Your task to perform on an android device: turn on sleep mode Image 0: 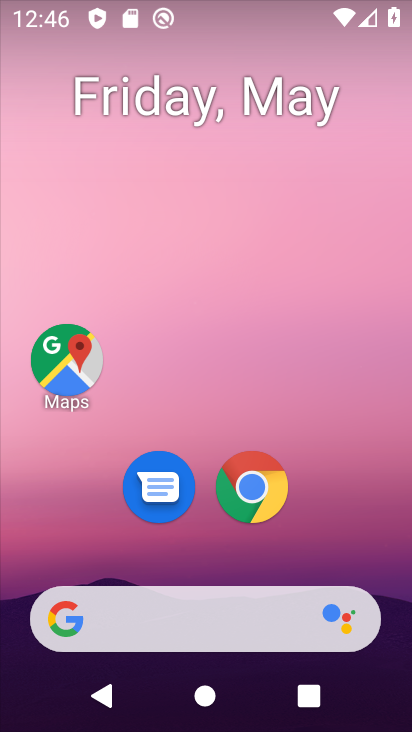
Step 0: click (209, 599)
Your task to perform on an android device: turn on sleep mode Image 1: 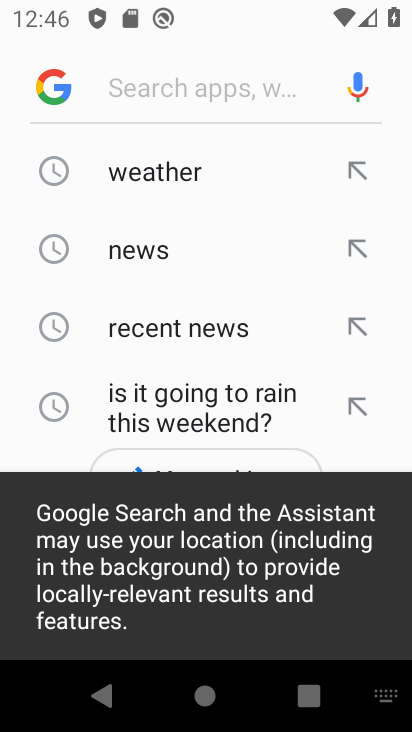
Step 1: press home button
Your task to perform on an android device: turn on sleep mode Image 2: 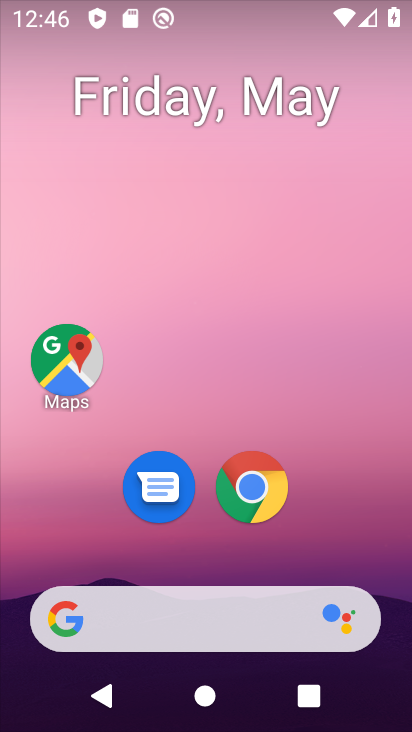
Step 2: drag from (212, 465) to (231, 132)
Your task to perform on an android device: turn on sleep mode Image 3: 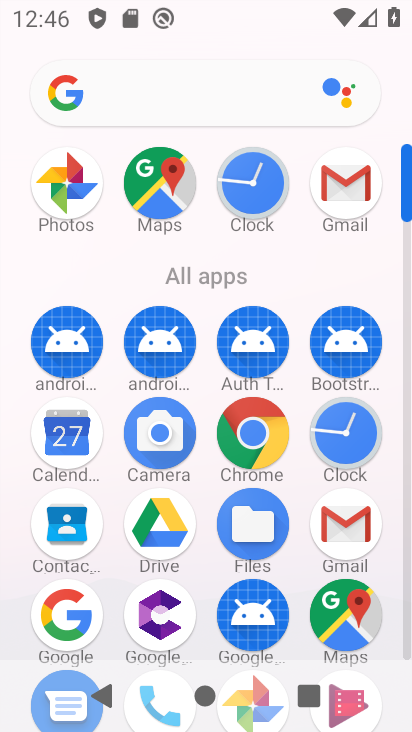
Step 3: drag from (217, 582) to (241, 266)
Your task to perform on an android device: turn on sleep mode Image 4: 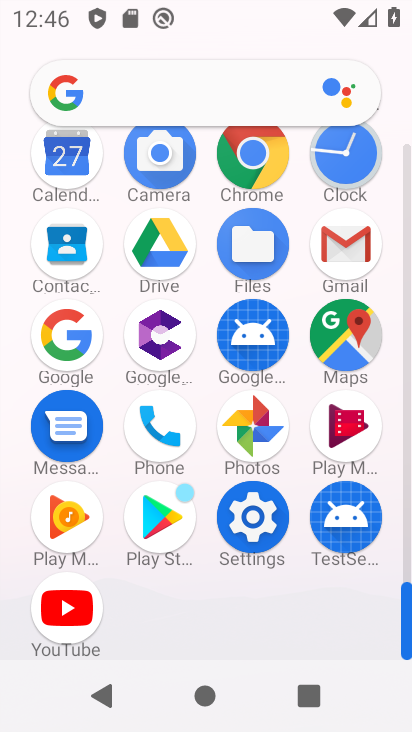
Step 4: click (248, 512)
Your task to perform on an android device: turn on sleep mode Image 5: 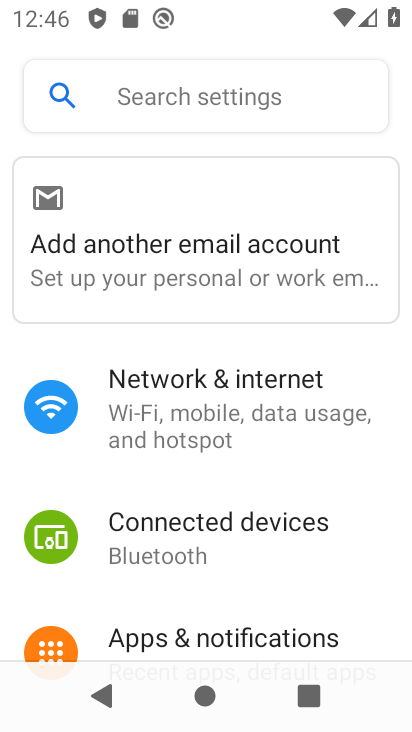
Step 5: task complete